Your task to perform on an android device: Open settings Image 0: 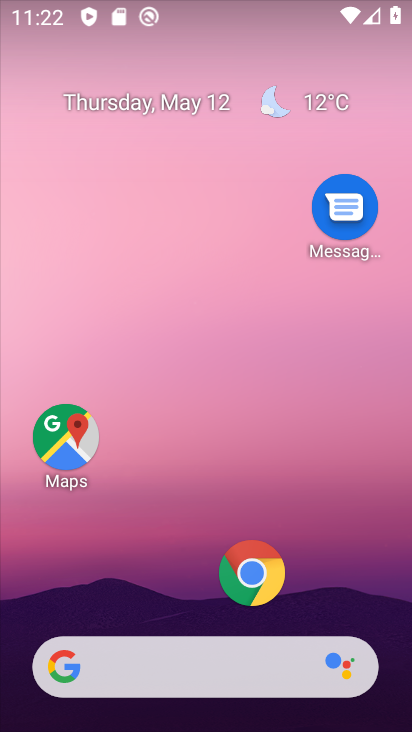
Step 0: drag from (306, 568) to (243, 87)
Your task to perform on an android device: Open settings Image 1: 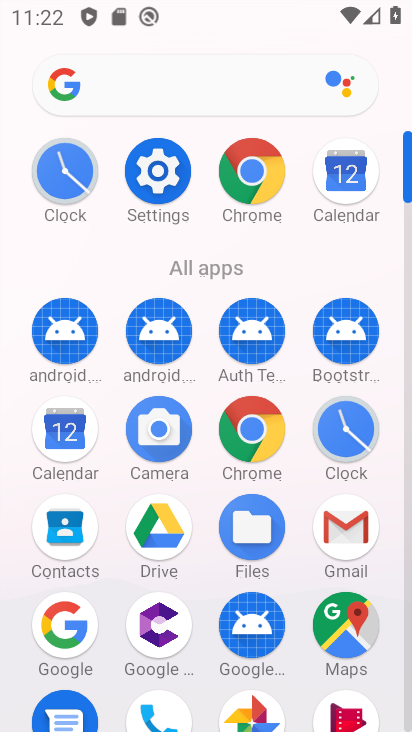
Step 1: click (150, 165)
Your task to perform on an android device: Open settings Image 2: 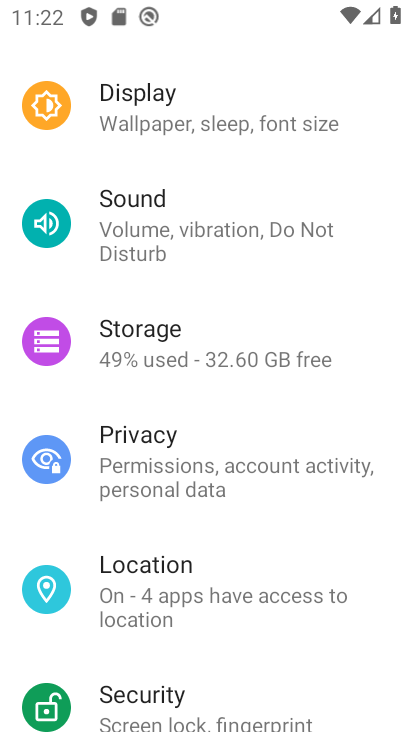
Step 2: task complete